Your task to perform on an android device: Go to Yahoo.com Image 0: 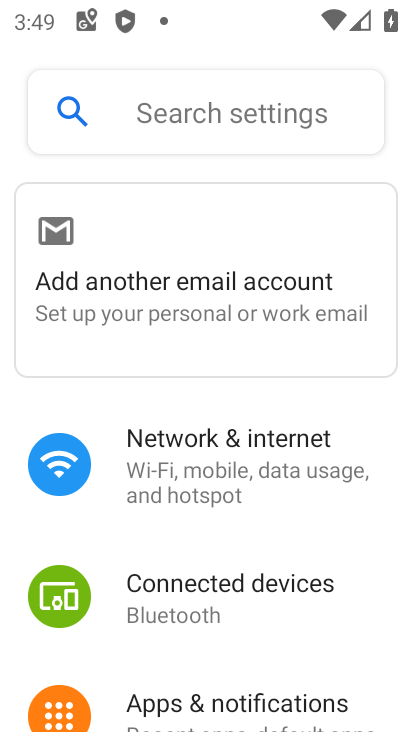
Step 0: press home button
Your task to perform on an android device: Go to Yahoo.com Image 1: 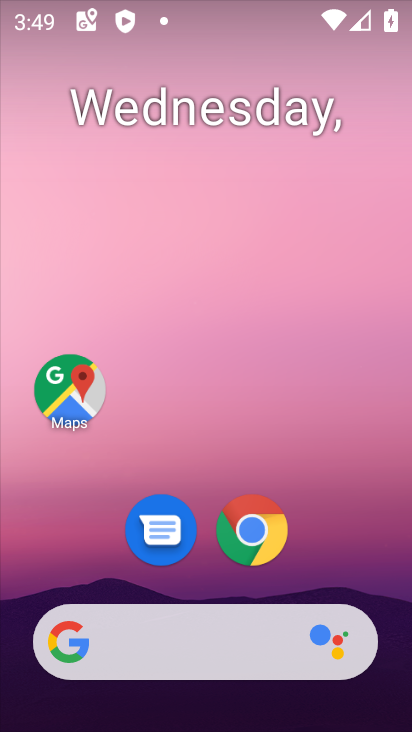
Step 1: drag from (363, 559) to (371, 202)
Your task to perform on an android device: Go to Yahoo.com Image 2: 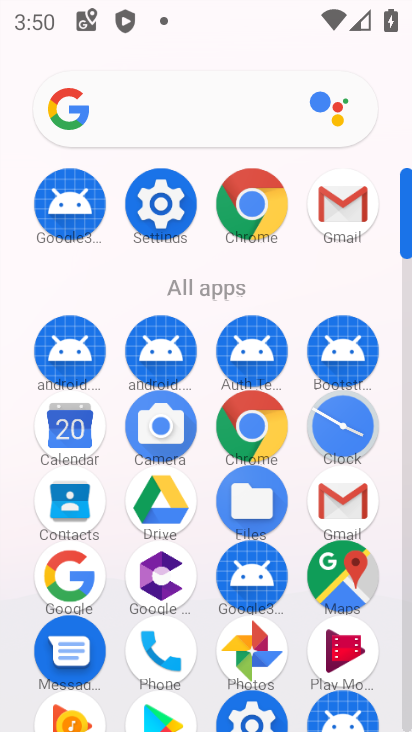
Step 2: click (263, 427)
Your task to perform on an android device: Go to Yahoo.com Image 3: 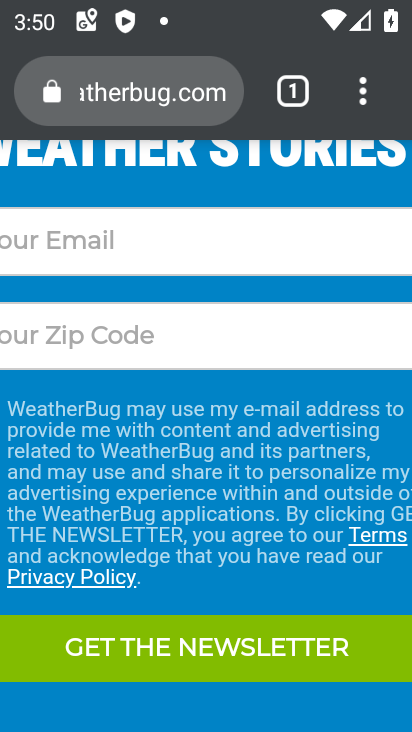
Step 3: click (136, 75)
Your task to perform on an android device: Go to Yahoo.com Image 4: 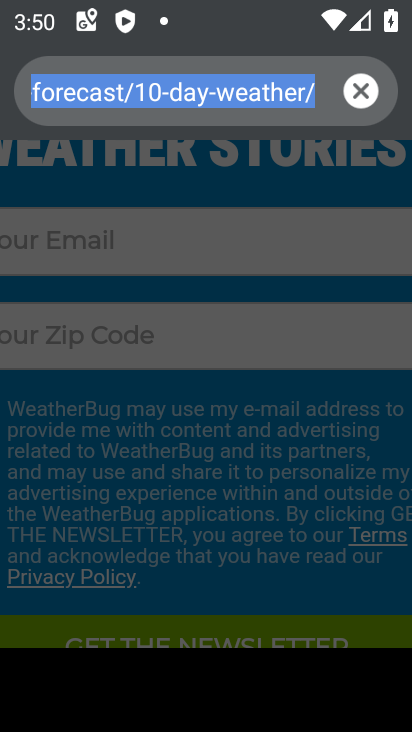
Step 4: click (365, 102)
Your task to perform on an android device: Go to Yahoo.com Image 5: 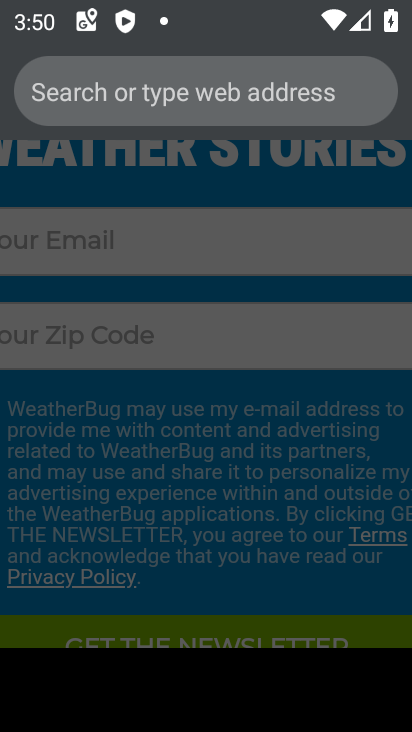
Step 5: type " Yahoo.com"
Your task to perform on an android device: Go to Yahoo.com Image 6: 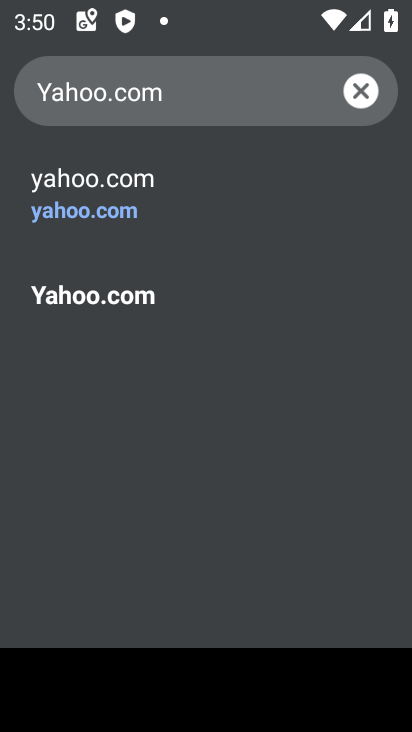
Step 6: click (107, 207)
Your task to perform on an android device: Go to Yahoo.com Image 7: 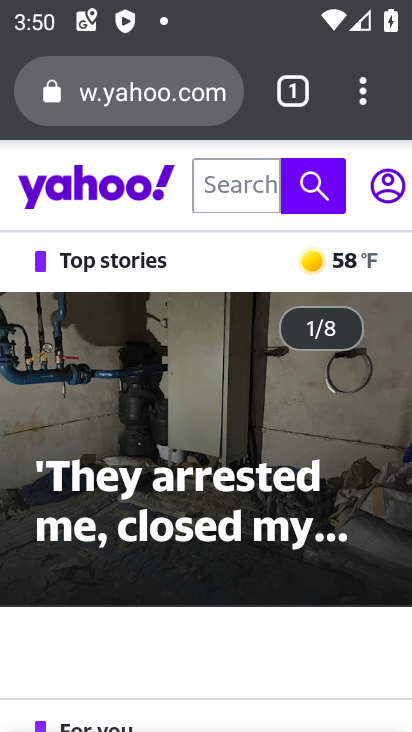
Step 7: task complete